Your task to perform on an android device: Search for "alienware aurora" on costco, select the first entry, add it to the cart, then select checkout. Image 0: 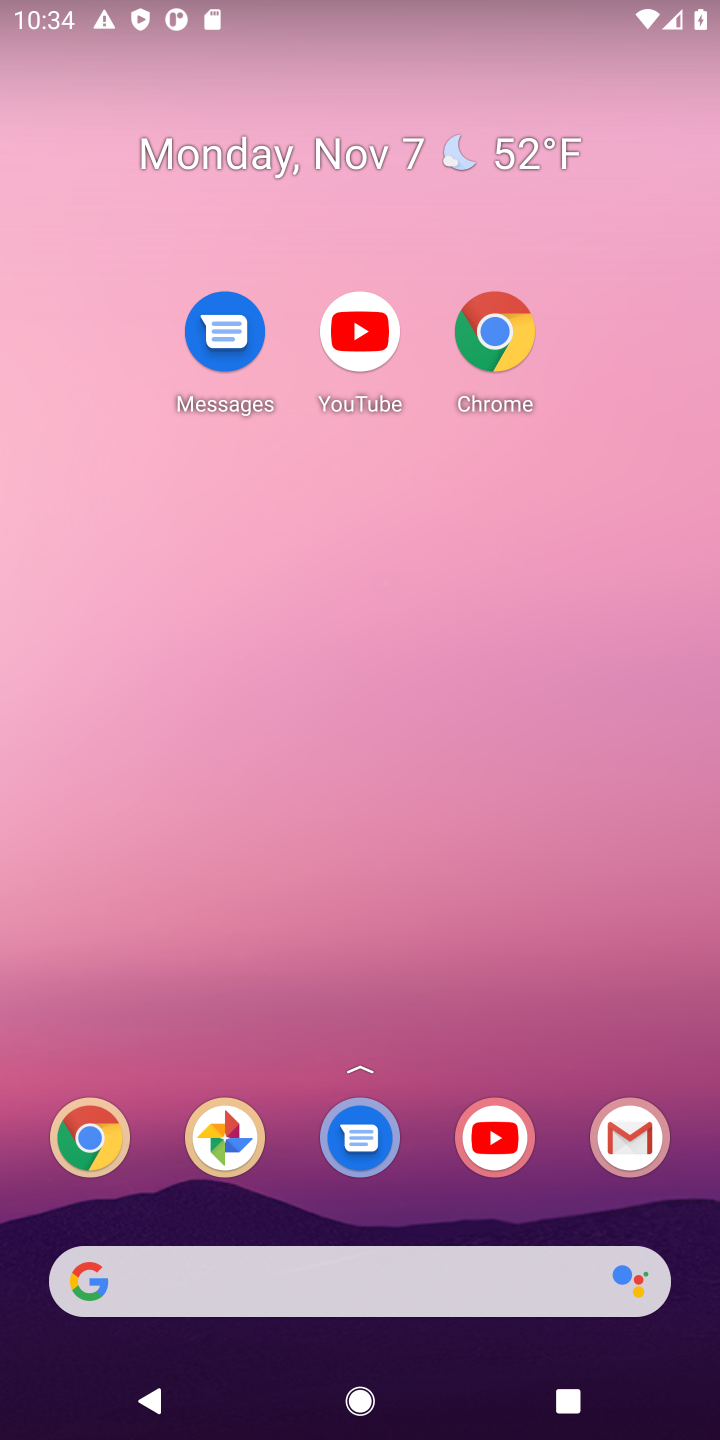
Step 0: drag from (479, 1049) to (489, 326)
Your task to perform on an android device: Search for "alienware aurora" on costco, select the first entry, add it to the cart, then select checkout. Image 1: 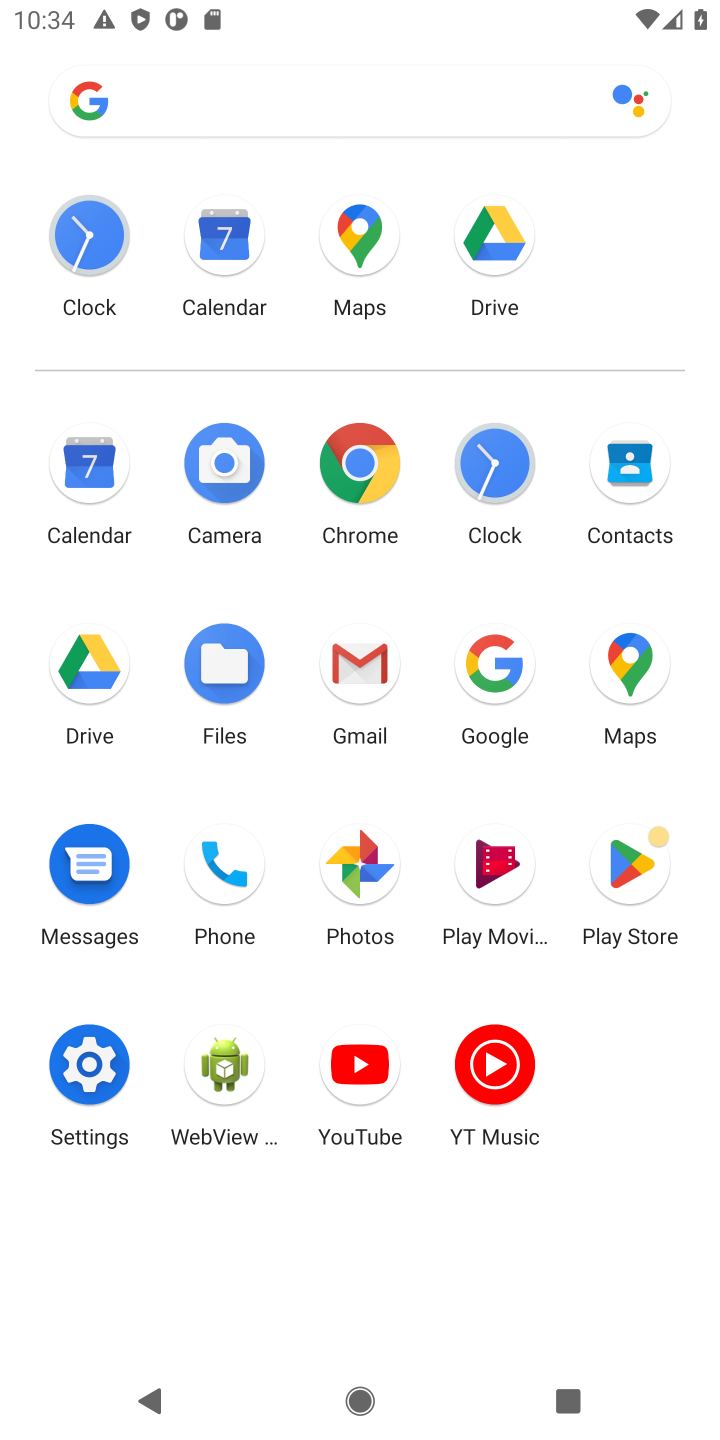
Step 1: click (365, 470)
Your task to perform on an android device: Search for "alienware aurora" on costco, select the first entry, add it to the cart, then select checkout. Image 2: 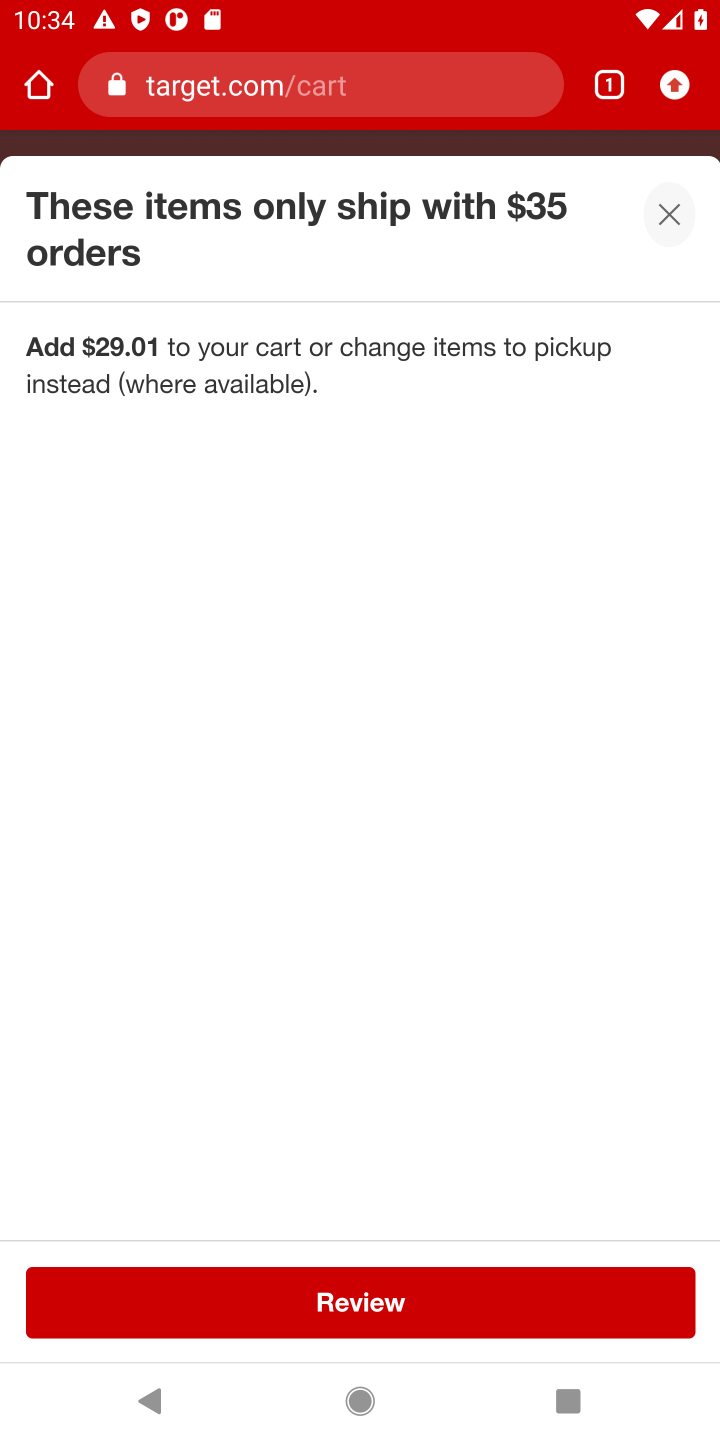
Step 2: click (424, 104)
Your task to perform on an android device: Search for "alienware aurora" on costco, select the first entry, add it to the cart, then select checkout. Image 3: 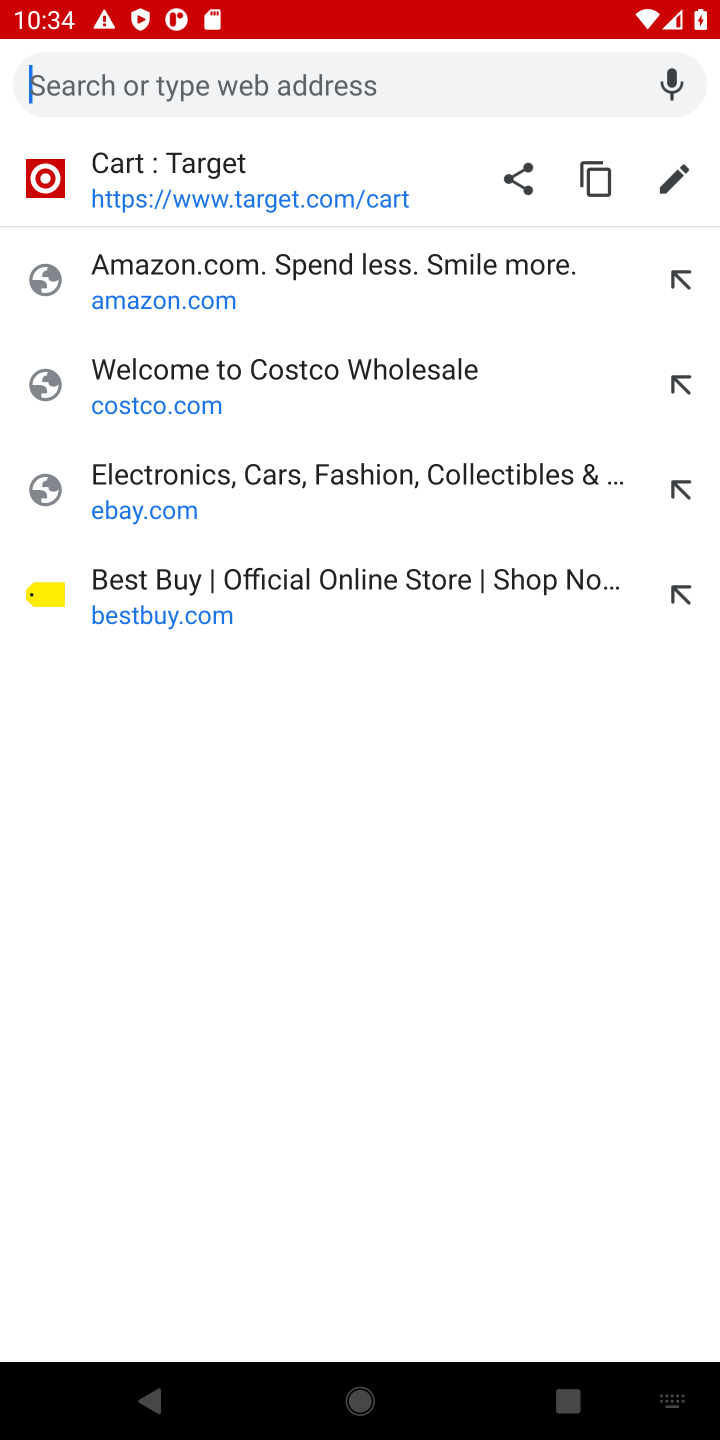
Step 3: type "costco.com"
Your task to perform on an android device: Search for "alienware aurora" on costco, select the first entry, add it to the cart, then select checkout. Image 4: 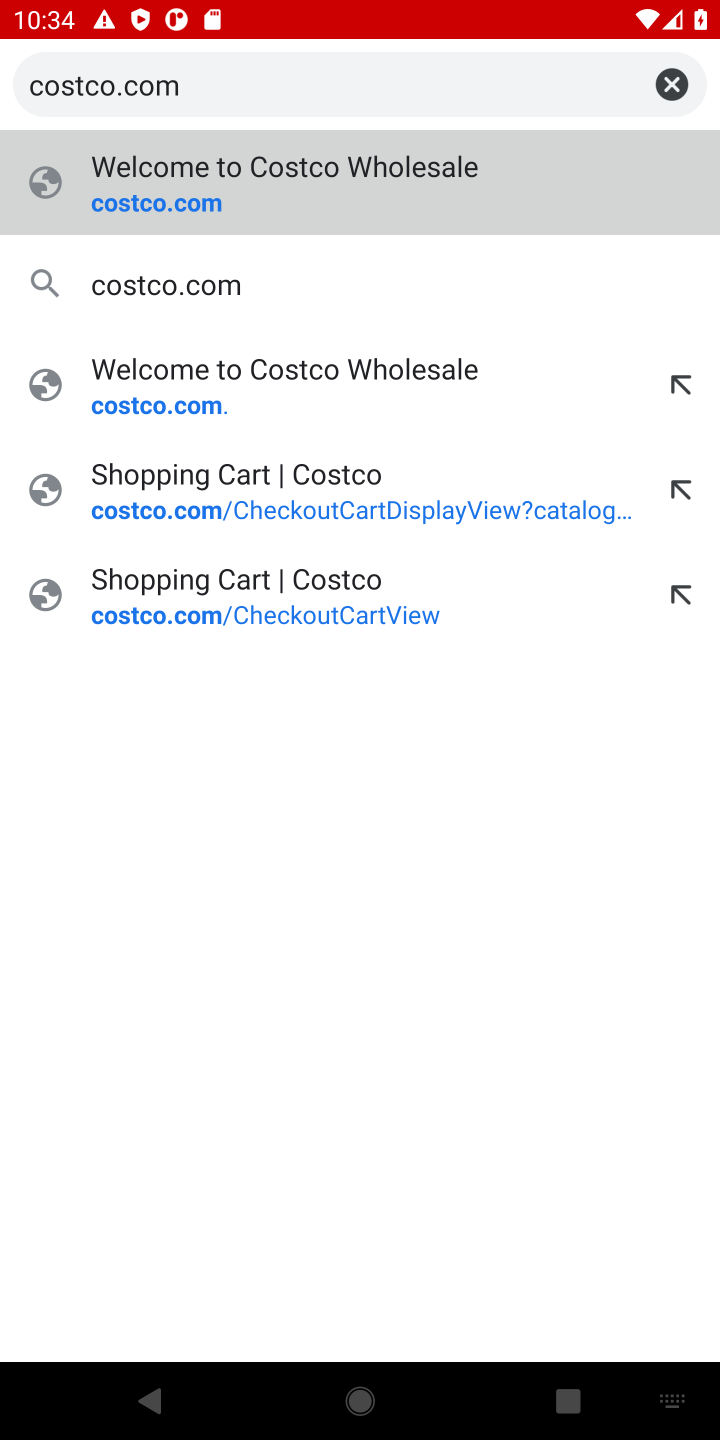
Step 4: press enter
Your task to perform on an android device: Search for "alienware aurora" on costco, select the first entry, add it to the cart, then select checkout. Image 5: 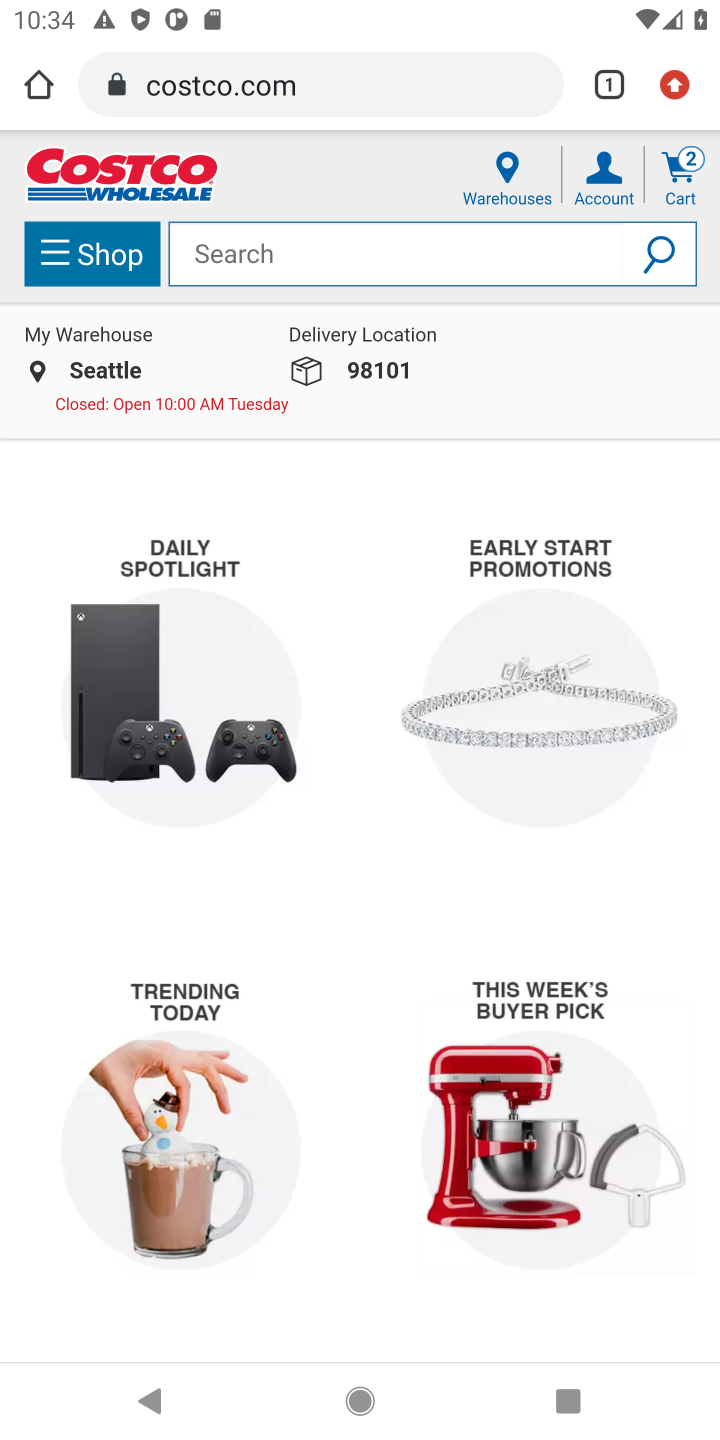
Step 5: click (296, 246)
Your task to perform on an android device: Search for "alienware aurora" on costco, select the first entry, add it to the cart, then select checkout. Image 6: 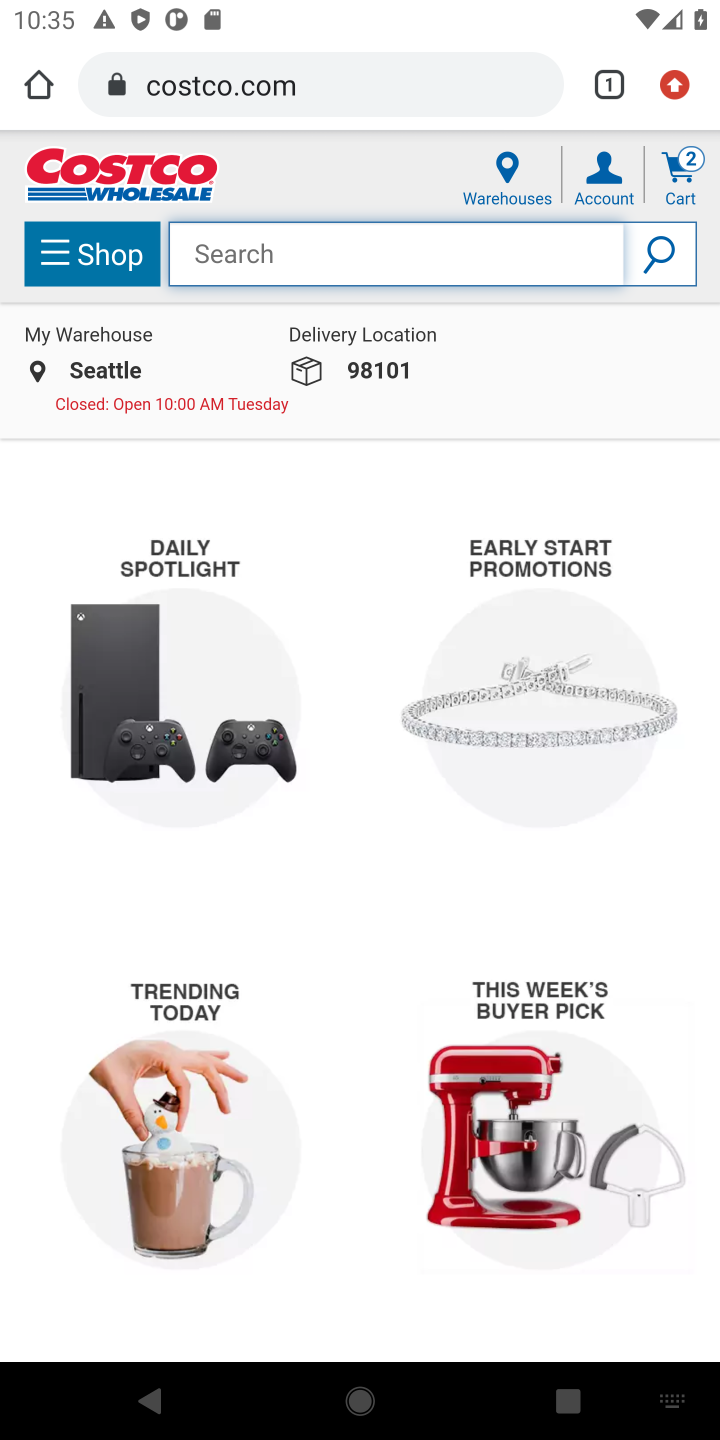
Step 6: type "alienware aurora"
Your task to perform on an android device: Search for "alienware aurora" on costco, select the first entry, add it to the cart, then select checkout. Image 7: 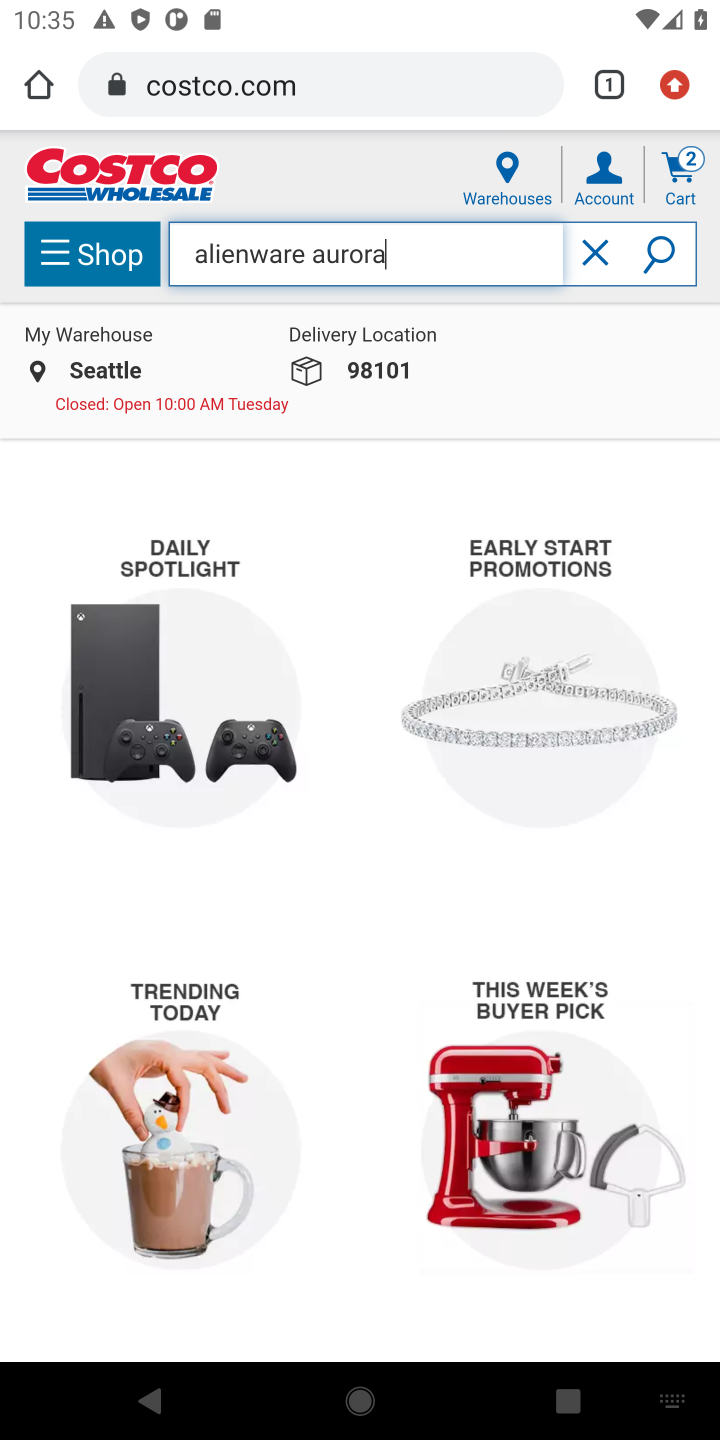
Step 7: press enter
Your task to perform on an android device: Search for "alienware aurora" on costco, select the first entry, add it to the cart, then select checkout. Image 8: 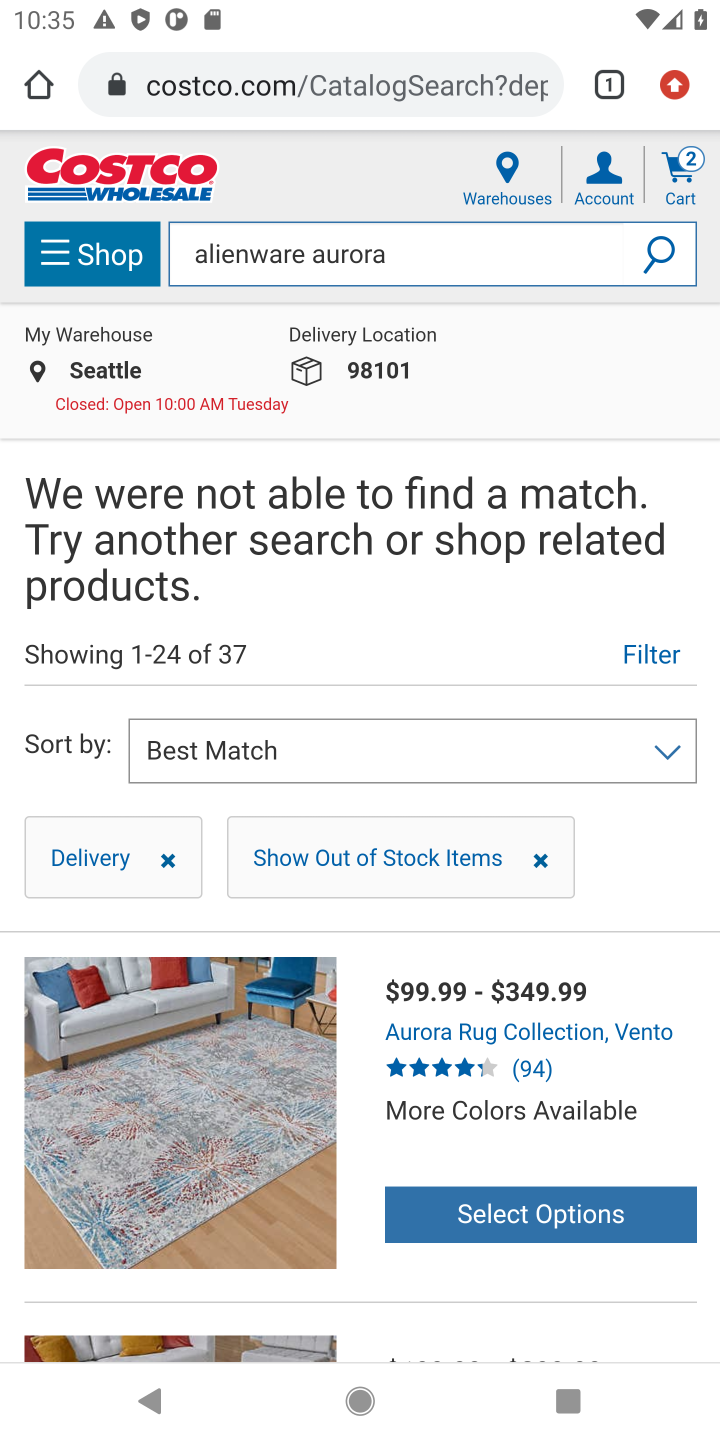
Step 8: task complete